Your task to perform on an android device: turn off improve location accuracy Image 0: 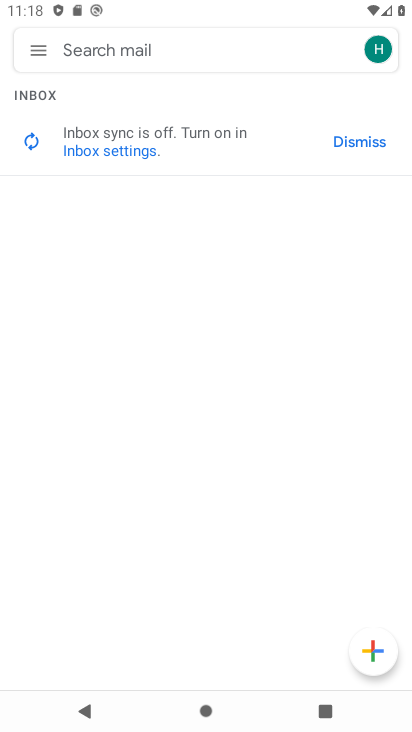
Step 0: press home button
Your task to perform on an android device: turn off improve location accuracy Image 1: 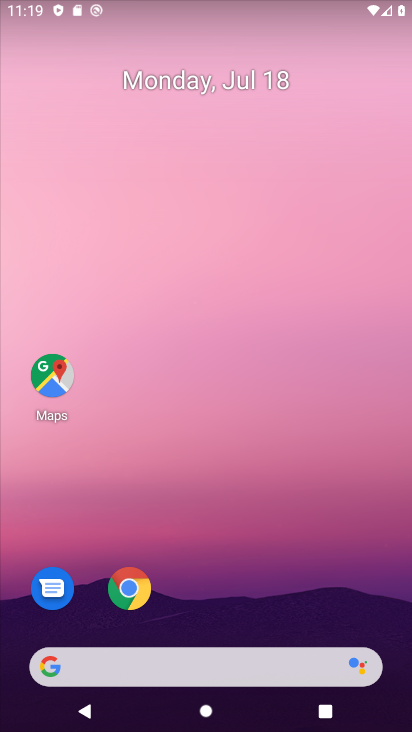
Step 1: drag from (291, 604) to (306, 93)
Your task to perform on an android device: turn off improve location accuracy Image 2: 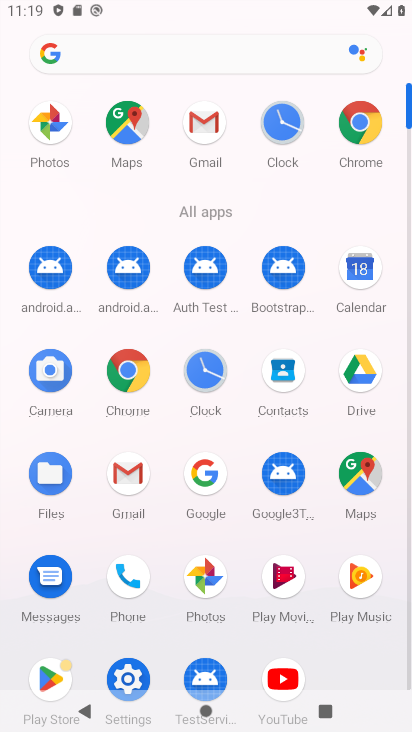
Step 2: click (119, 668)
Your task to perform on an android device: turn off improve location accuracy Image 3: 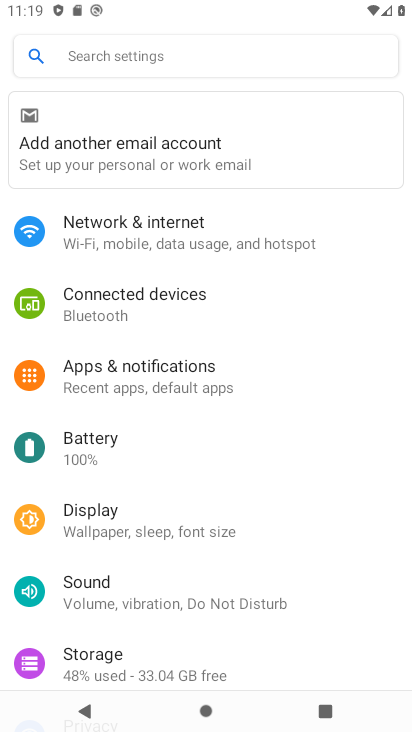
Step 3: drag from (149, 648) to (207, 154)
Your task to perform on an android device: turn off improve location accuracy Image 4: 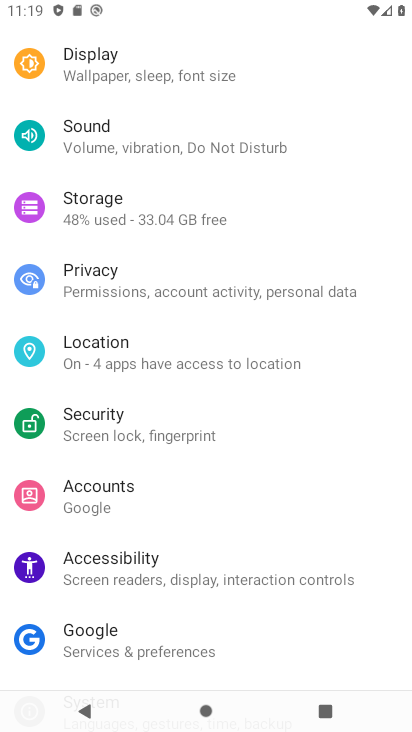
Step 4: click (57, 357)
Your task to perform on an android device: turn off improve location accuracy Image 5: 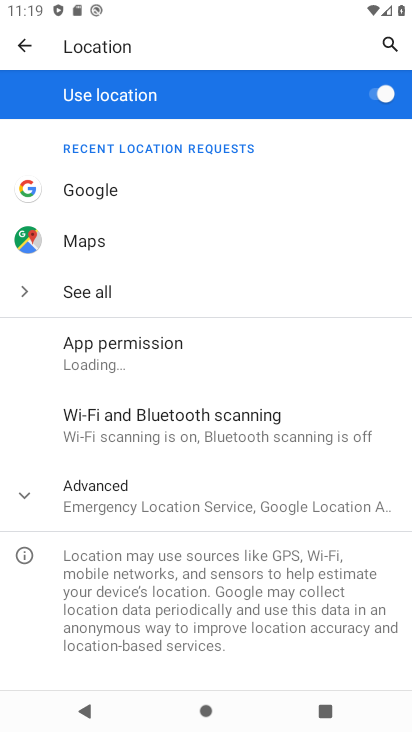
Step 5: click (96, 512)
Your task to perform on an android device: turn off improve location accuracy Image 6: 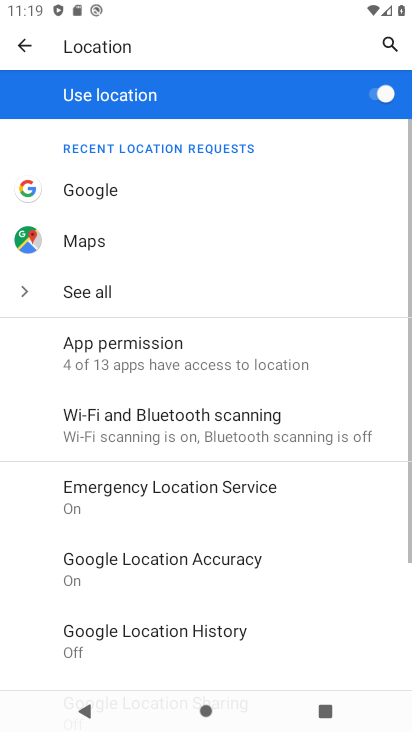
Step 6: drag from (202, 638) to (294, 264)
Your task to perform on an android device: turn off improve location accuracy Image 7: 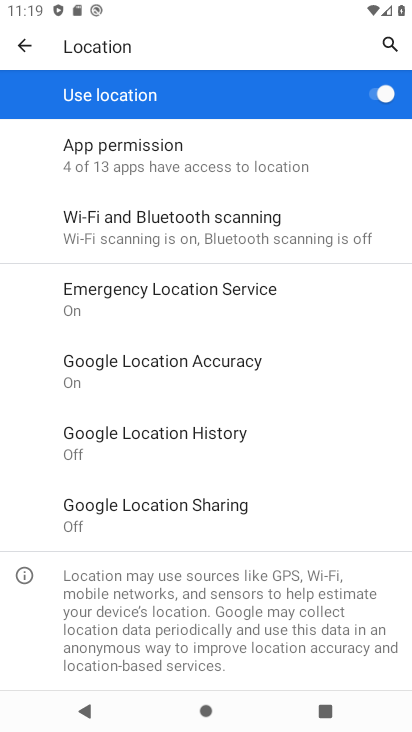
Step 7: click (176, 367)
Your task to perform on an android device: turn off improve location accuracy Image 8: 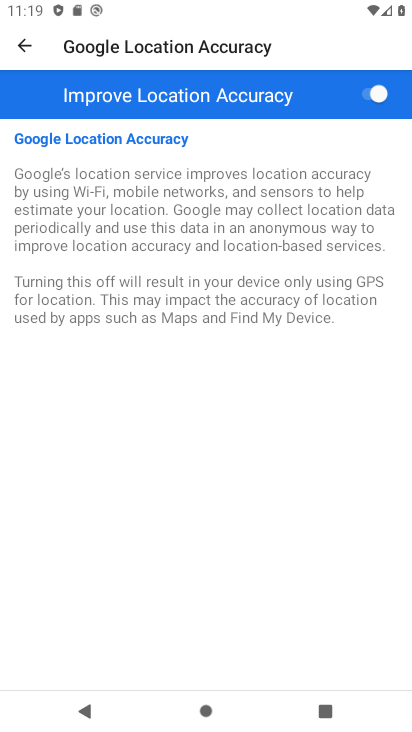
Step 8: click (365, 95)
Your task to perform on an android device: turn off improve location accuracy Image 9: 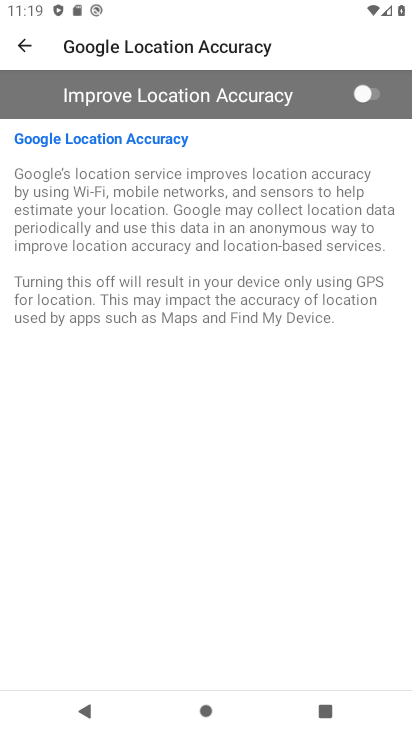
Step 9: task complete